Your task to perform on an android device: Go to Reddit.com Image 0: 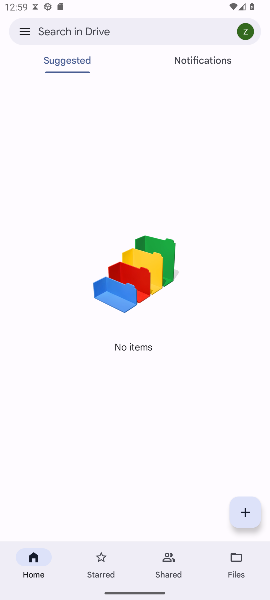
Step 0: task complete